Your task to perform on an android device: Open Wikipedia Image 0: 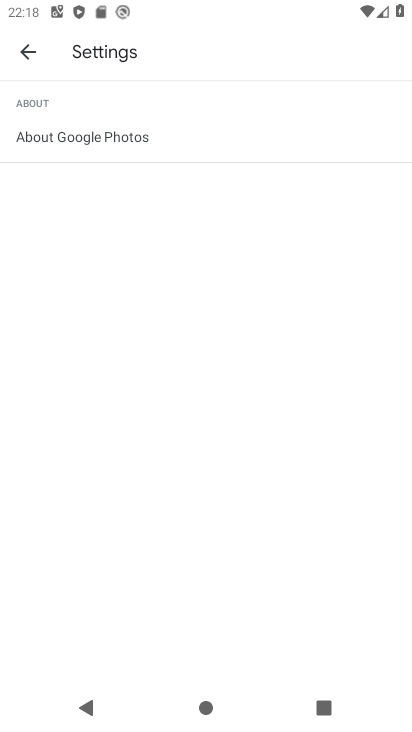
Step 0: press home button
Your task to perform on an android device: Open Wikipedia Image 1: 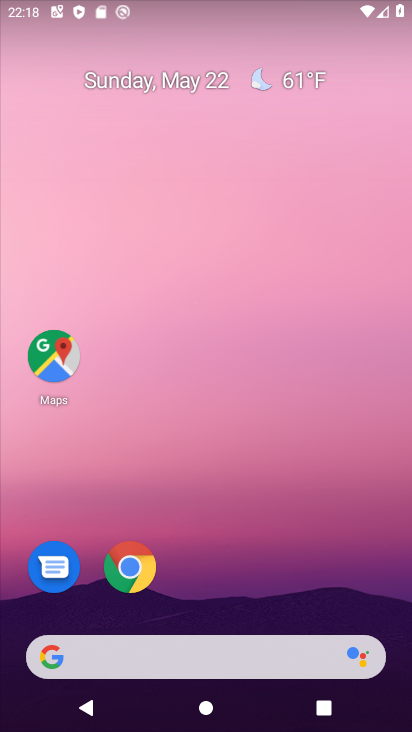
Step 1: click (135, 571)
Your task to perform on an android device: Open Wikipedia Image 2: 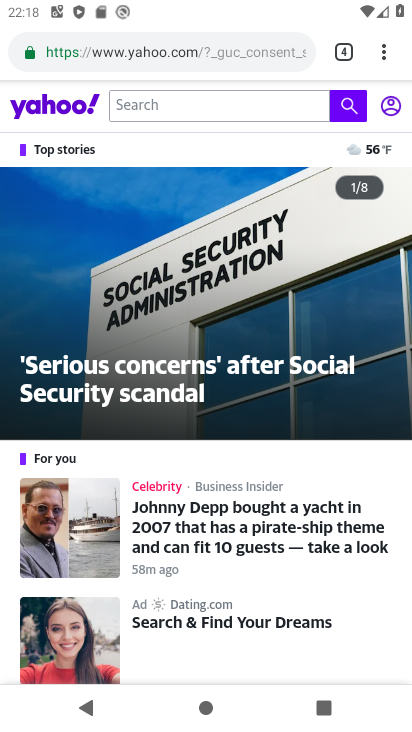
Step 2: click (348, 48)
Your task to perform on an android device: Open Wikipedia Image 3: 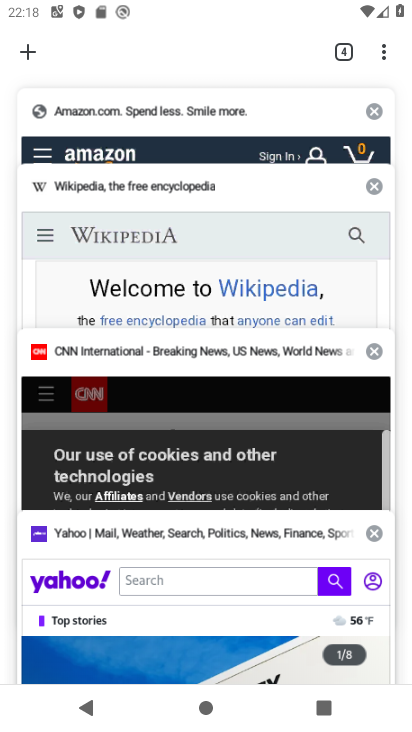
Step 3: click (29, 62)
Your task to perform on an android device: Open Wikipedia Image 4: 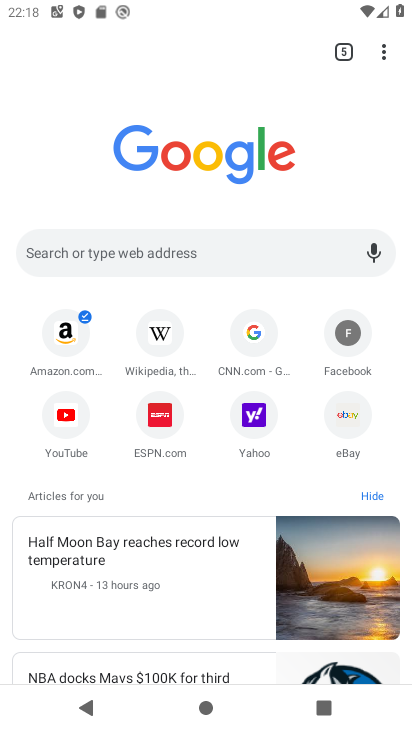
Step 4: click (153, 320)
Your task to perform on an android device: Open Wikipedia Image 5: 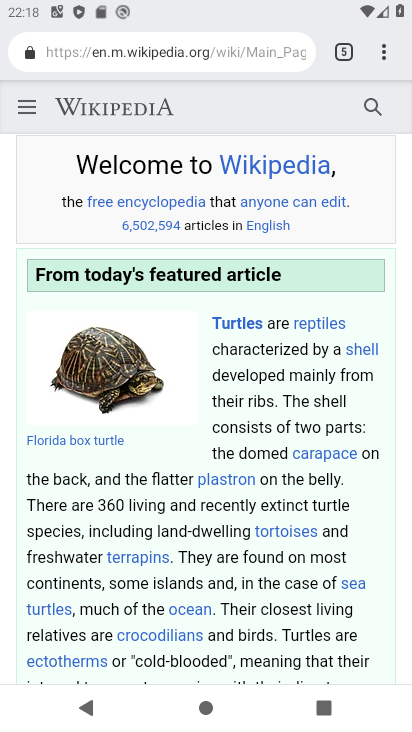
Step 5: task complete